Your task to perform on an android device: open app "McDonald's" (install if not already installed) Image 0: 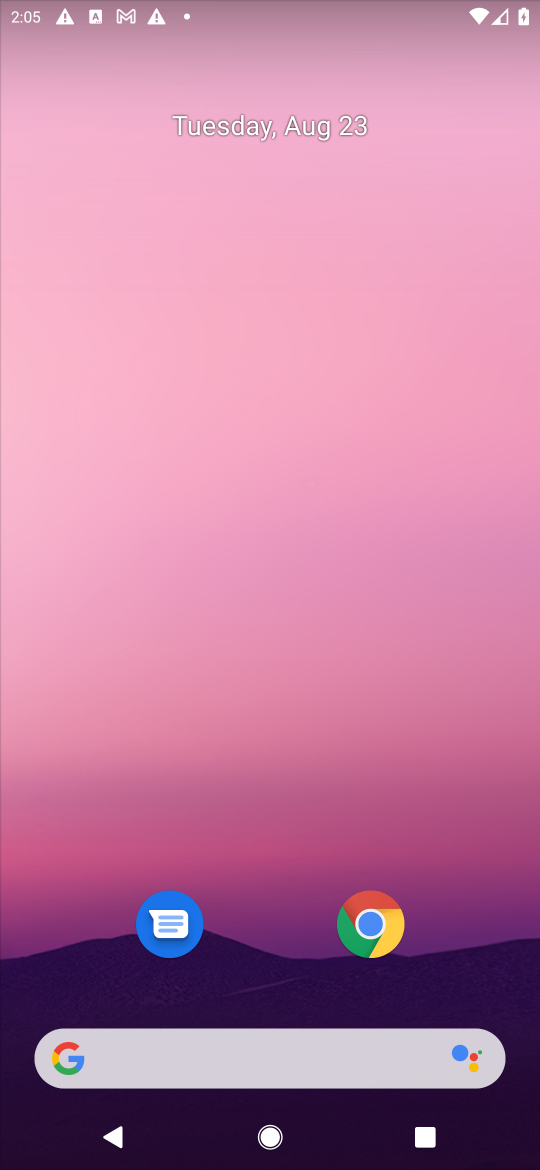
Step 0: press home button
Your task to perform on an android device: open app "McDonald's" (install if not already installed) Image 1: 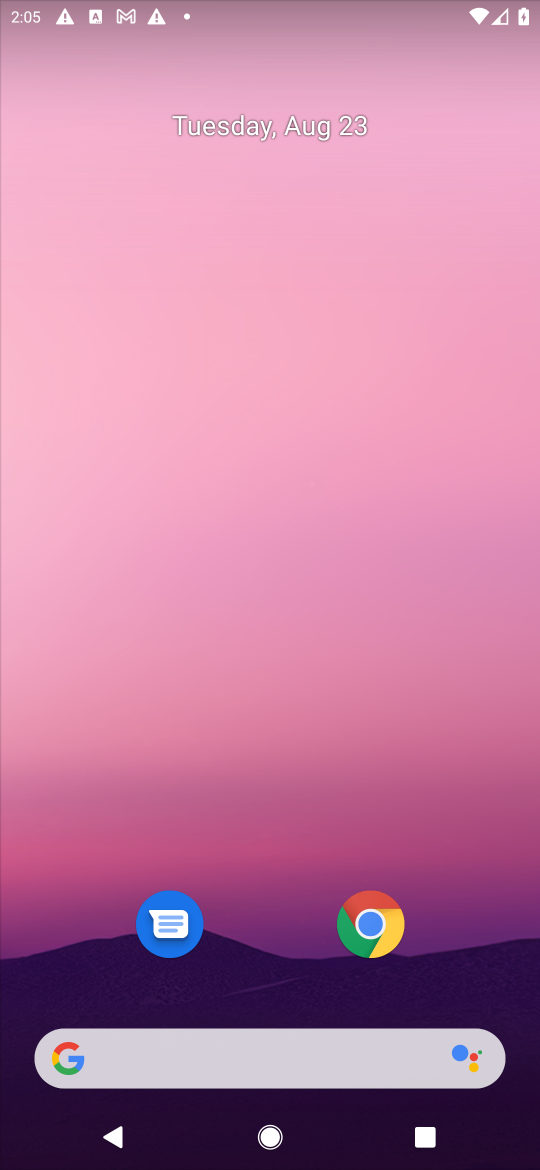
Step 1: drag from (445, 921) to (457, 157)
Your task to perform on an android device: open app "McDonald's" (install if not already installed) Image 2: 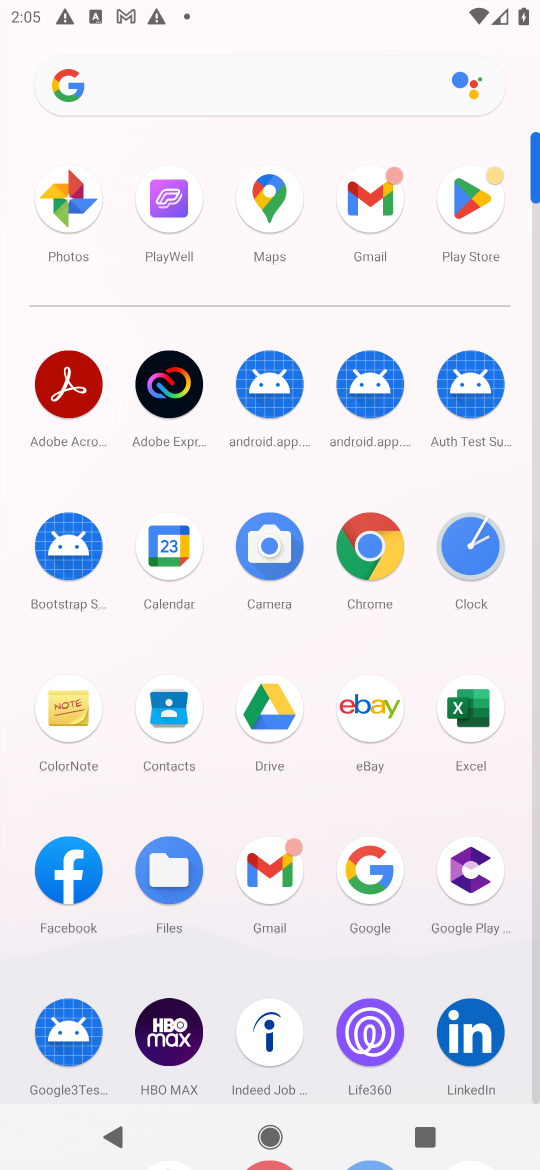
Step 2: click (470, 189)
Your task to perform on an android device: open app "McDonald's" (install if not already installed) Image 3: 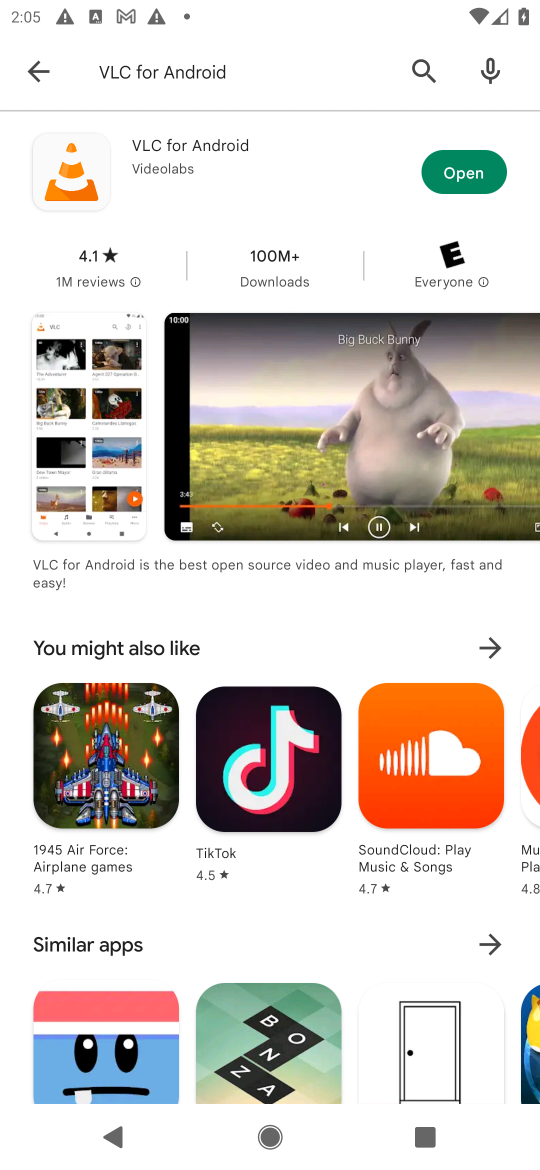
Step 3: press back button
Your task to perform on an android device: open app "McDonald's" (install if not already installed) Image 4: 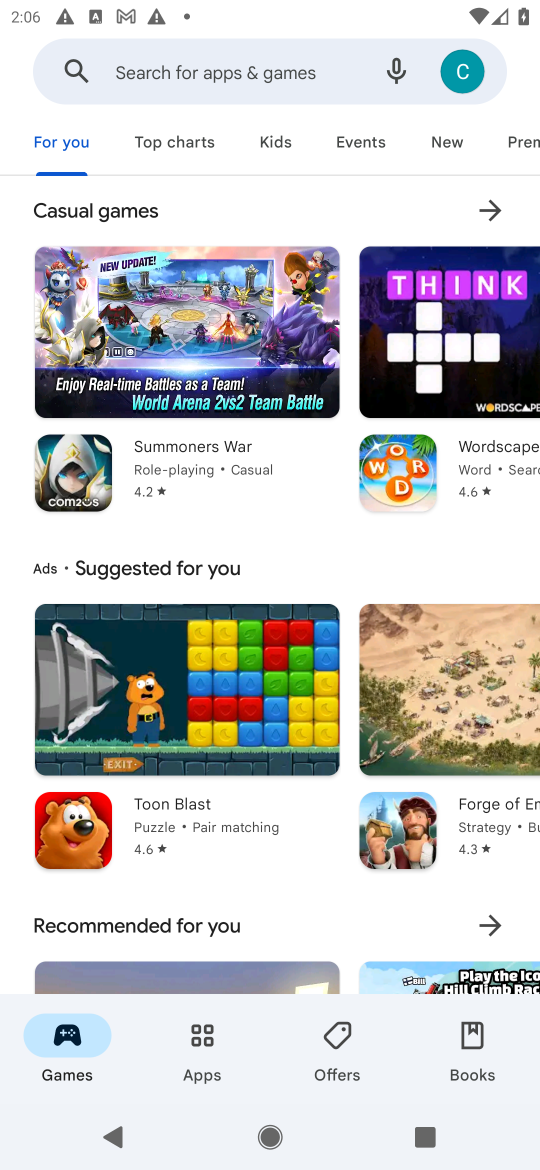
Step 4: click (217, 79)
Your task to perform on an android device: open app "McDonald's" (install if not already installed) Image 5: 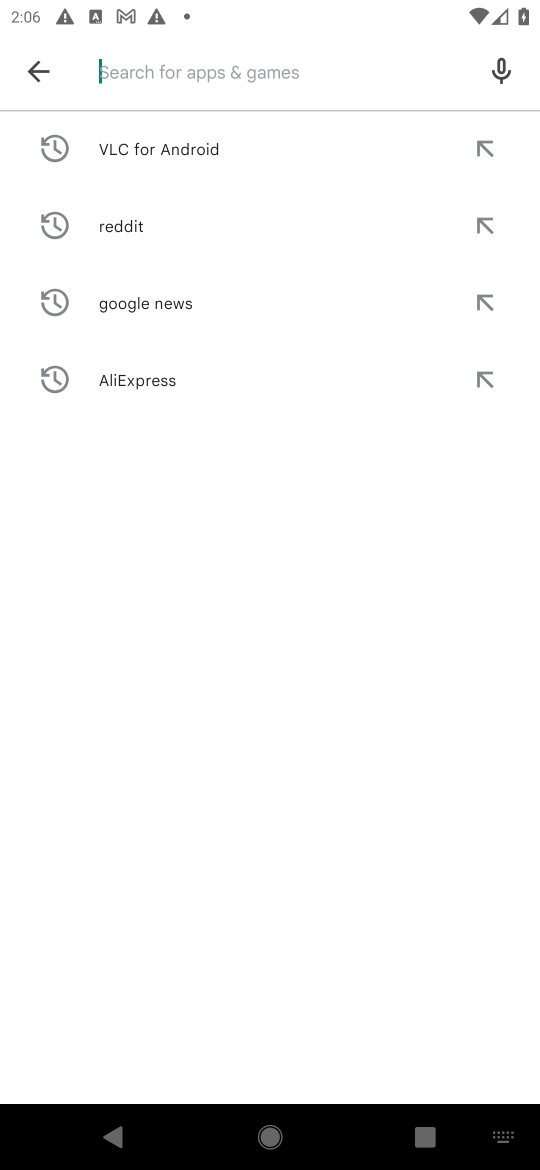
Step 5: type "McDonald's"
Your task to perform on an android device: open app "McDonald's" (install if not already installed) Image 6: 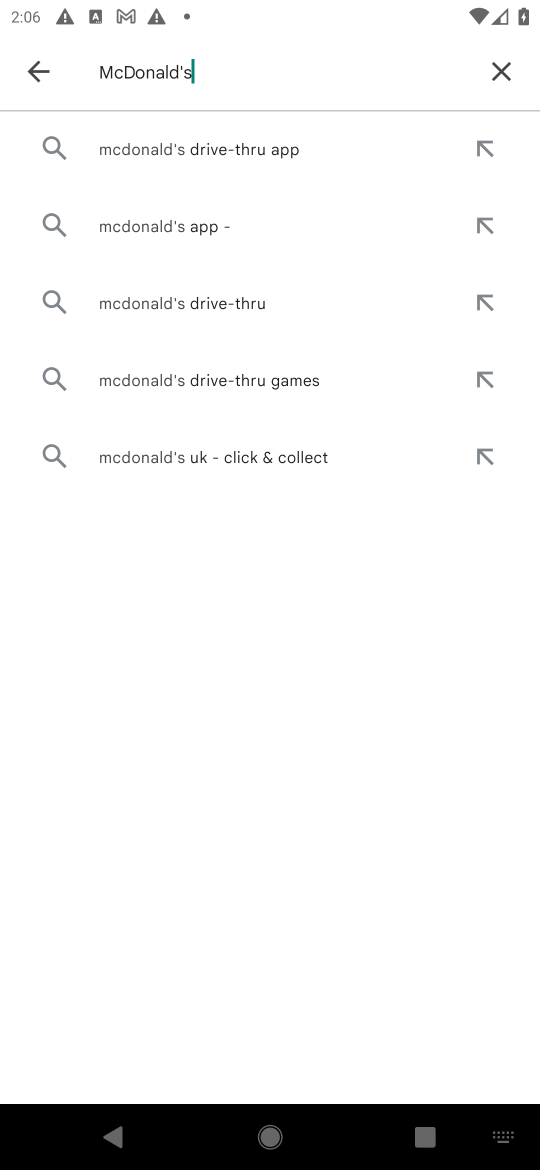
Step 6: press enter
Your task to perform on an android device: open app "McDonald's" (install if not already installed) Image 7: 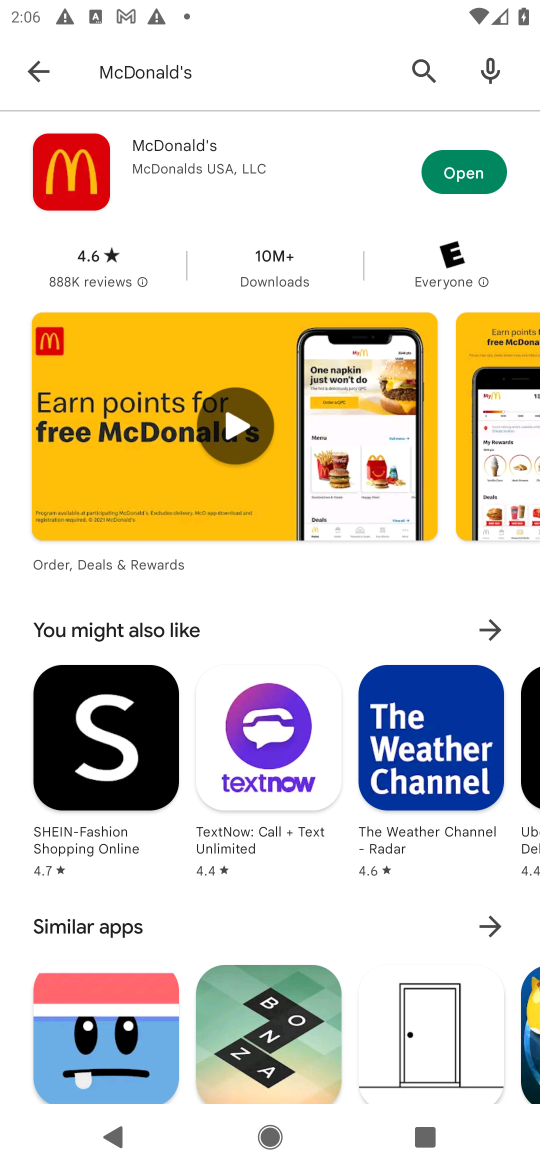
Step 7: click (469, 168)
Your task to perform on an android device: open app "McDonald's" (install if not already installed) Image 8: 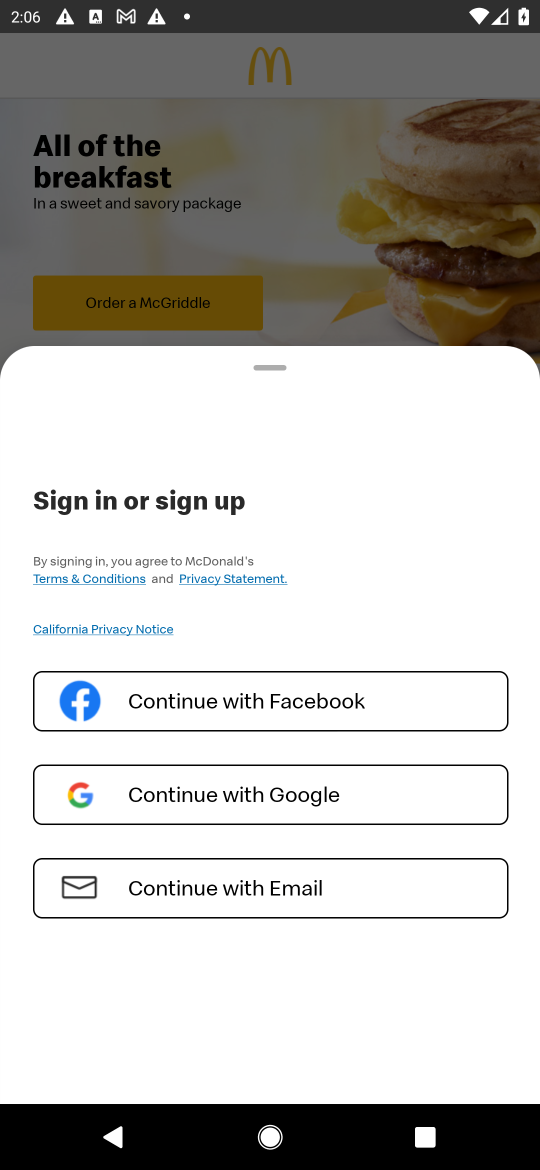
Step 8: task complete